Your task to perform on an android device: Go to CNN.com Image 0: 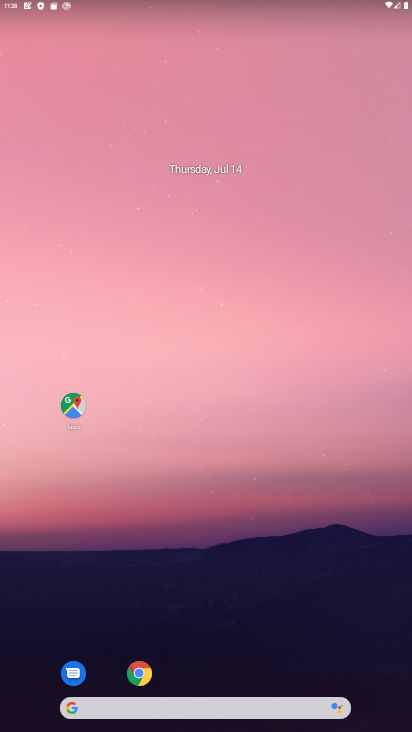
Step 0: click (139, 674)
Your task to perform on an android device: Go to CNN.com Image 1: 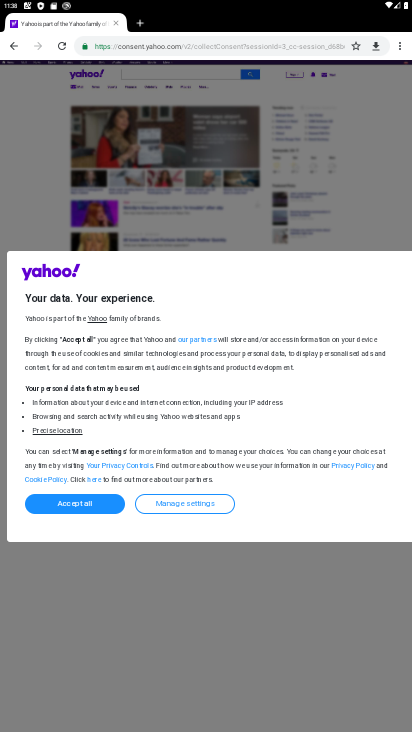
Step 1: click (139, 24)
Your task to perform on an android device: Go to CNN.com Image 2: 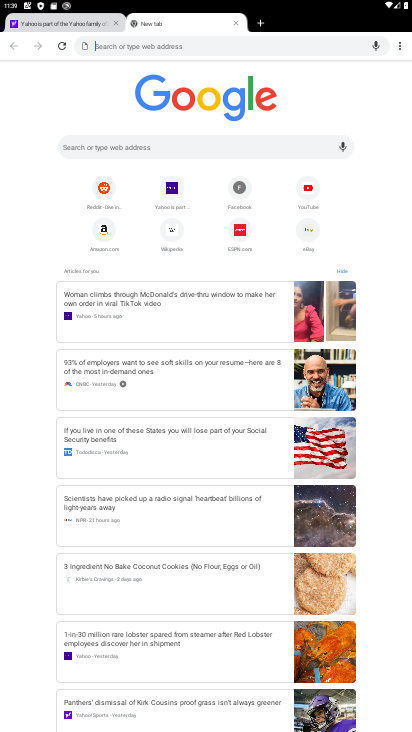
Step 2: click (115, 24)
Your task to perform on an android device: Go to CNN.com Image 3: 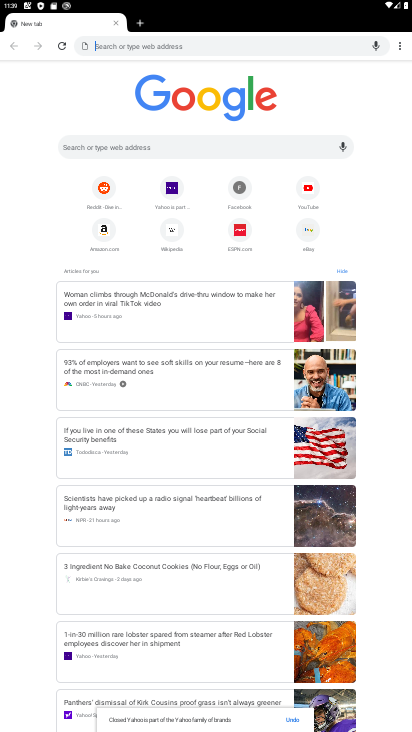
Step 3: click (240, 228)
Your task to perform on an android device: Go to CNN.com Image 4: 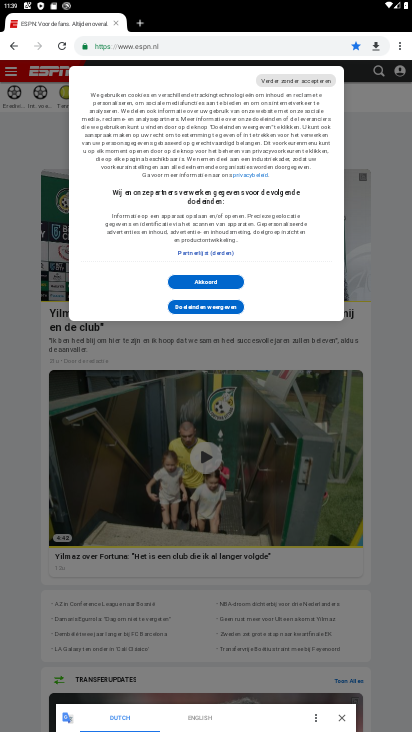
Step 4: task complete